Your task to perform on an android device: Go to Amazon Image 0: 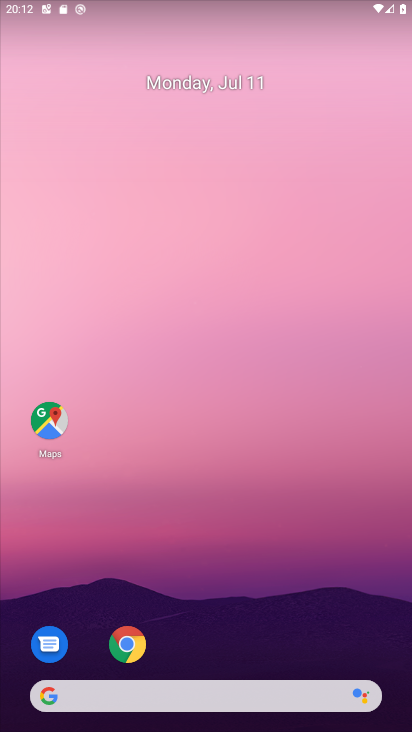
Step 0: drag from (288, 663) to (275, 172)
Your task to perform on an android device: Go to Amazon Image 1: 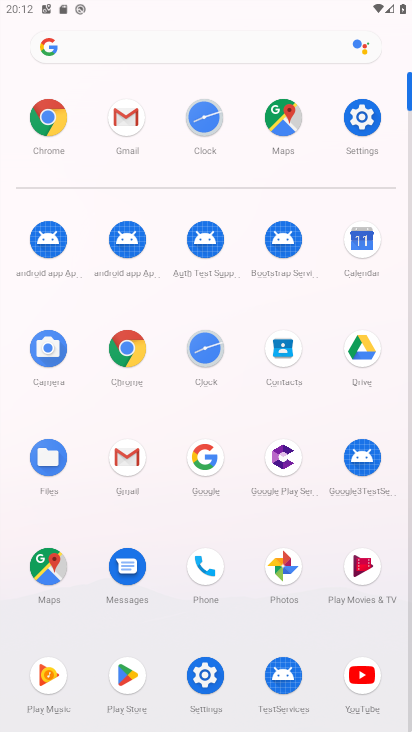
Step 1: click (34, 118)
Your task to perform on an android device: Go to Amazon Image 2: 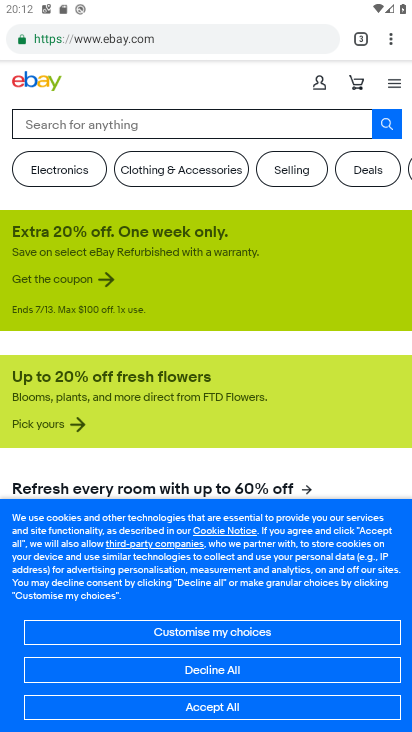
Step 2: click (396, 46)
Your task to perform on an android device: Go to Amazon Image 3: 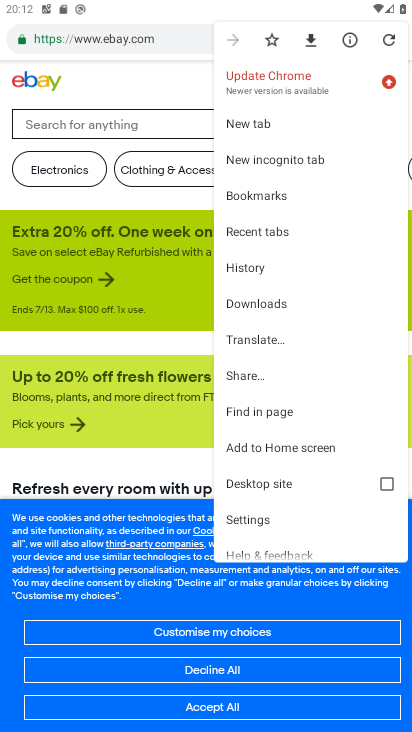
Step 3: click (242, 117)
Your task to perform on an android device: Go to Amazon Image 4: 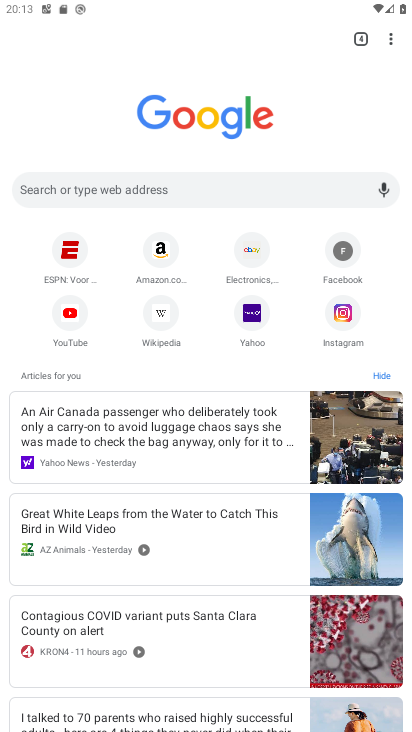
Step 4: click (158, 235)
Your task to perform on an android device: Go to Amazon Image 5: 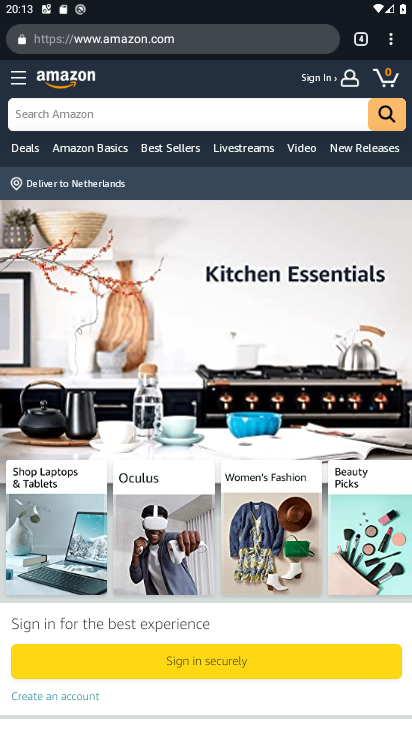
Step 5: task complete